Your task to perform on an android device: check the backup settings in the google photos Image 0: 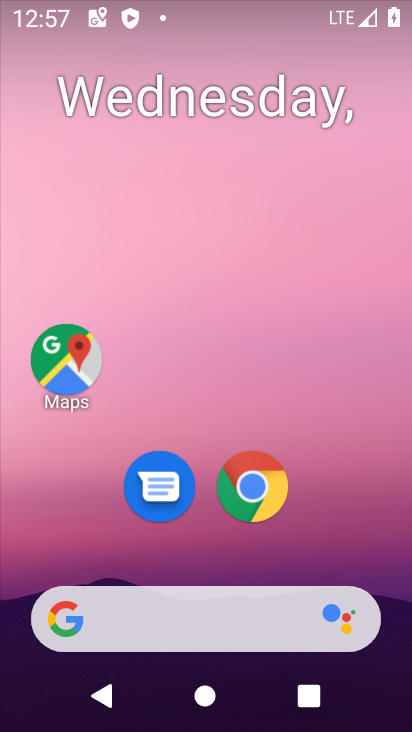
Step 0: drag from (387, 553) to (391, 79)
Your task to perform on an android device: check the backup settings in the google photos Image 1: 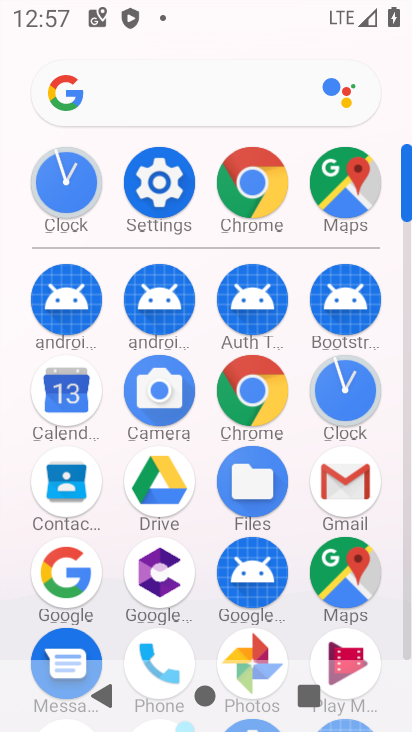
Step 1: drag from (385, 503) to (398, 183)
Your task to perform on an android device: check the backup settings in the google photos Image 2: 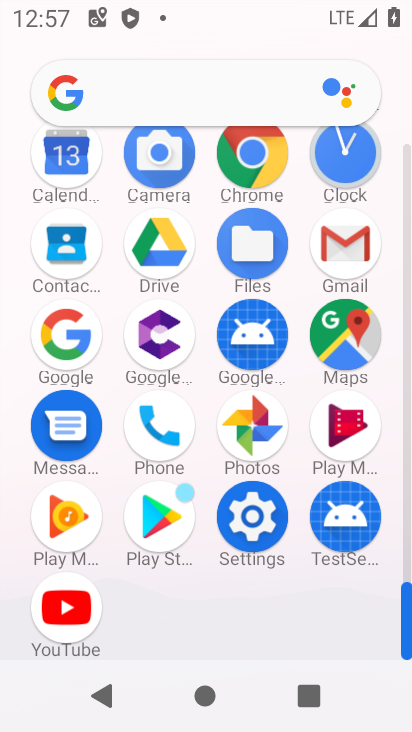
Step 2: click (262, 430)
Your task to perform on an android device: check the backup settings in the google photos Image 3: 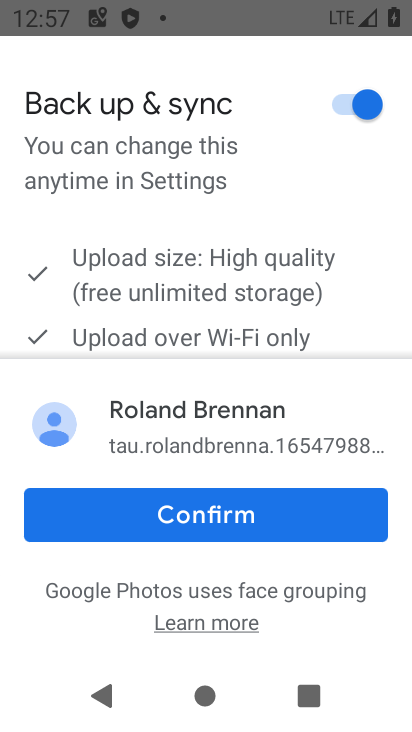
Step 3: click (254, 509)
Your task to perform on an android device: check the backup settings in the google photos Image 4: 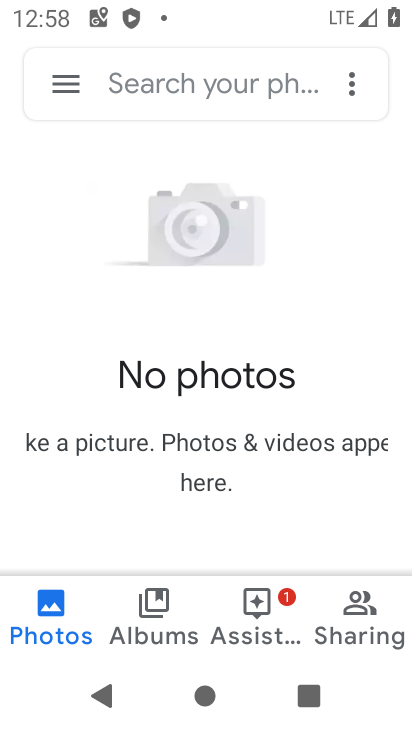
Step 4: click (69, 86)
Your task to perform on an android device: check the backup settings in the google photos Image 5: 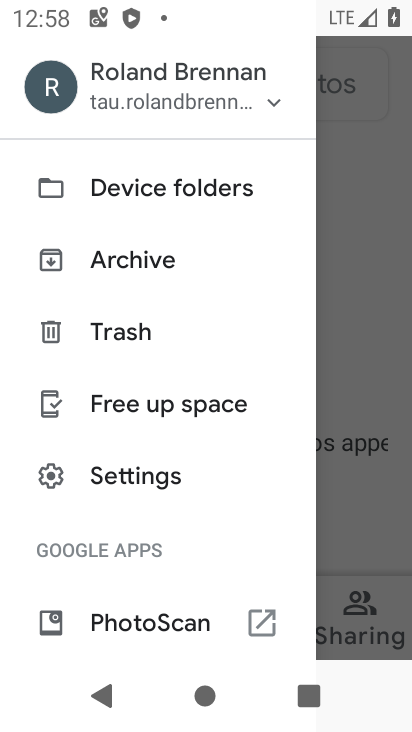
Step 5: drag from (253, 457) to (242, 218)
Your task to perform on an android device: check the backup settings in the google photos Image 6: 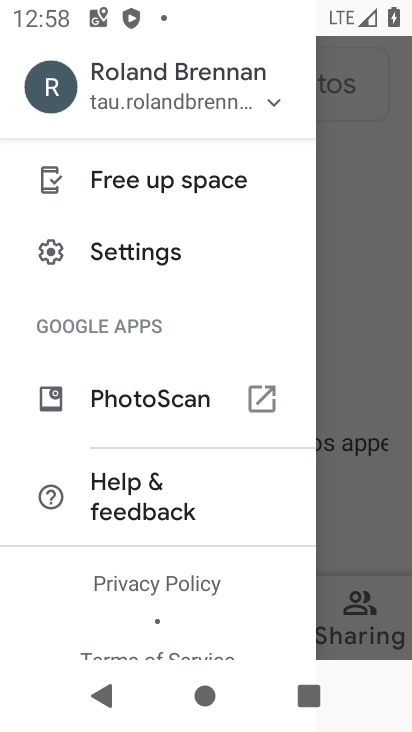
Step 6: drag from (242, 454) to (222, 254)
Your task to perform on an android device: check the backup settings in the google photos Image 7: 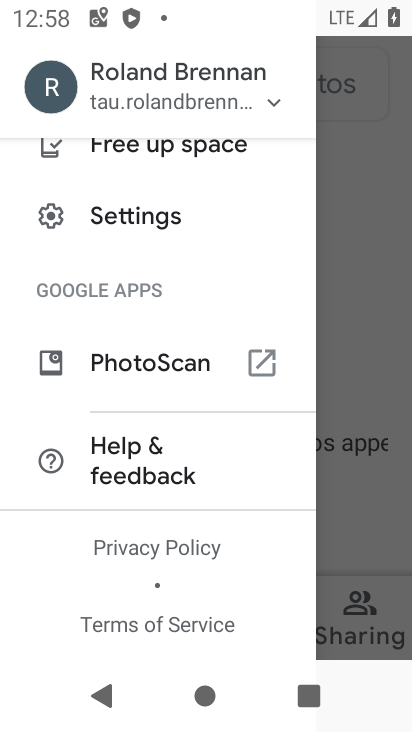
Step 7: drag from (220, 255) to (220, 411)
Your task to perform on an android device: check the backup settings in the google photos Image 8: 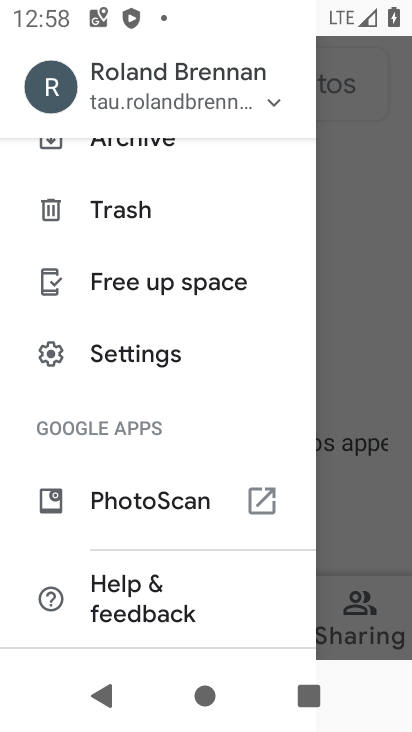
Step 8: drag from (229, 234) to (220, 417)
Your task to perform on an android device: check the backup settings in the google photos Image 9: 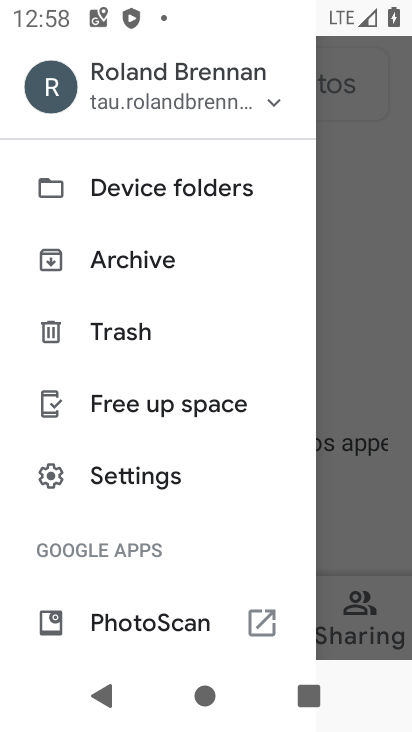
Step 9: drag from (238, 228) to (239, 418)
Your task to perform on an android device: check the backup settings in the google photos Image 10: 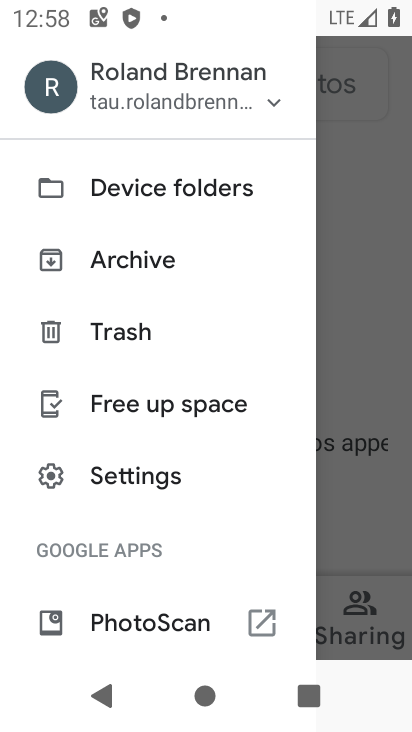
Step 10: click (170, 475)
Your task to perform on an android device: check the backup settings in the google photos Image 11: 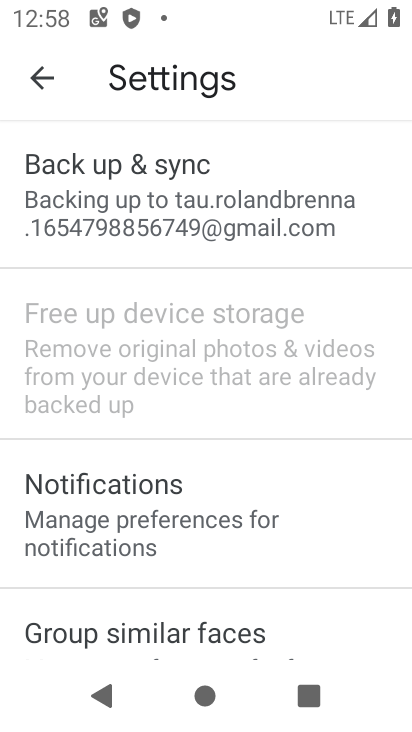
Step 11: click (260, 211)
Your task to perform on an android device: check the backup settings in the google photos Image 12: 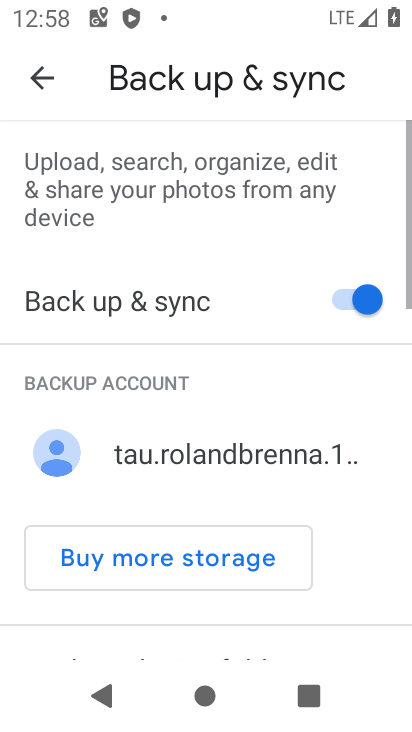
Step 12: task complete